Your task to perform on an android device: toggle pop-ups in chrome Image 0: 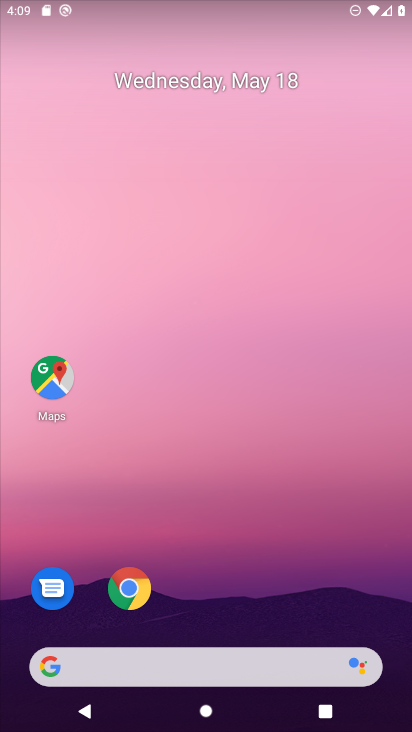
Step 0: click (142, 586)
Your task to perform on an android device: toggle pop-ups in chrome Image 1: 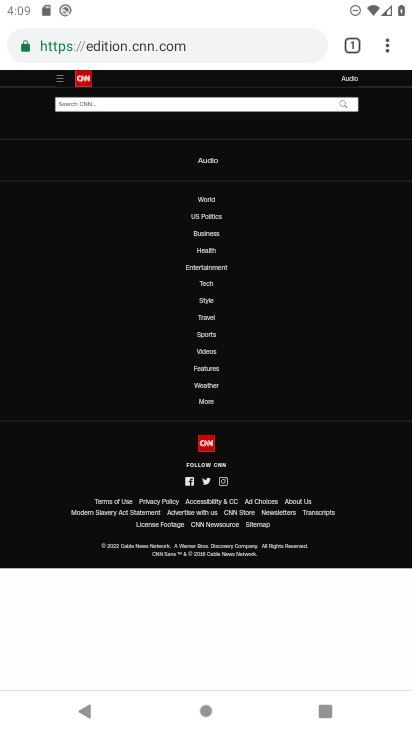
Step 1: click (388, 51)
Your task to perform on an android device: toggle pop-ups in chrome Image 2: 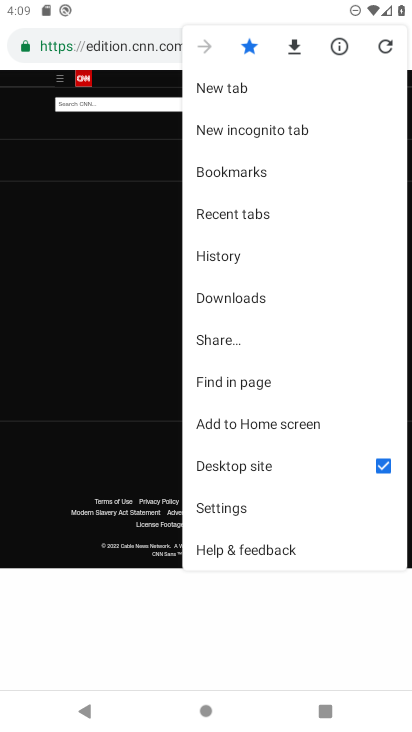
Step 2: click (243, 502)
Your task to perform on an android device: toggle pop-ups in chrome Image 3: 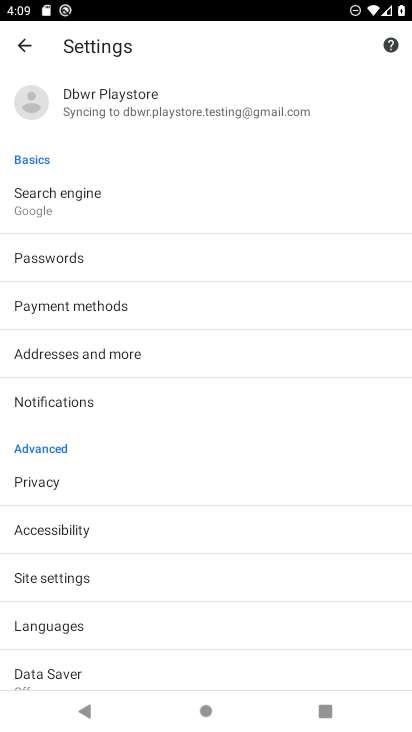
Step 3: click (146, 577)
Your task to perform on an android device: toggle pop-ups in chrome Image 4: 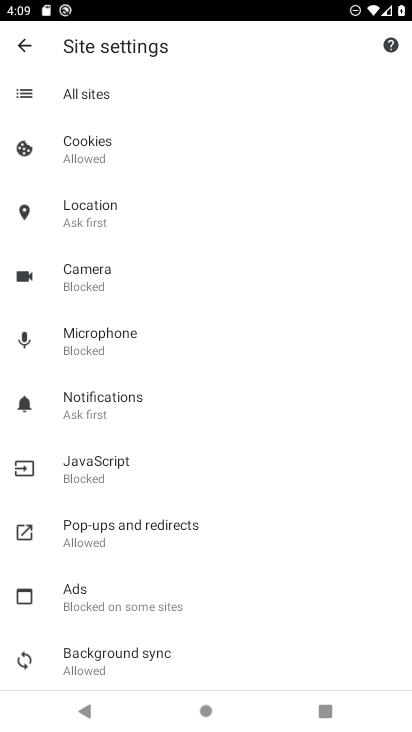
Step 4: click (153, 555)
Your task to perform on an android device: toggle pop-ups in chrome Image 5: 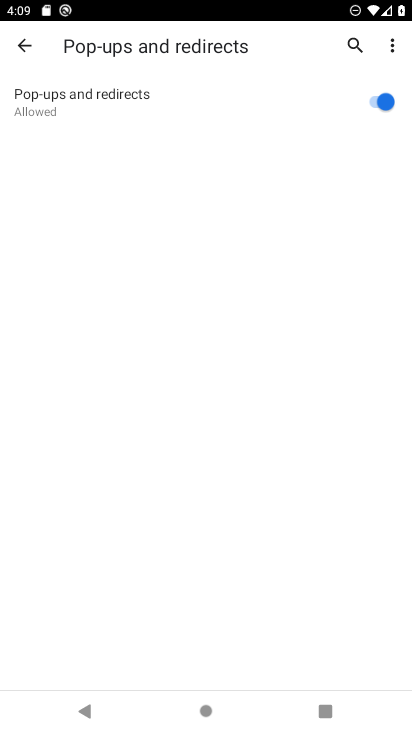
Step 5: click (366, 115)
Your task to perform on an android device: toggle pop-ups in chrome Image 6: 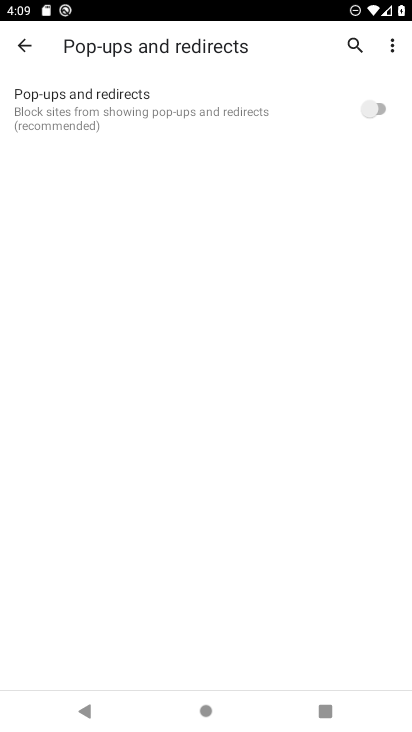
Step 6: task complete